Your task to perform on an android device: What is the news today? Image 0: 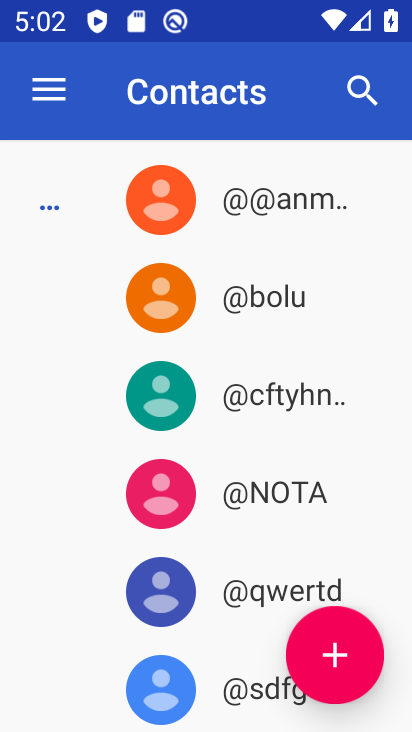
Step 0: press back button
Your task to perform on an android device: What is the news today? Image 1: 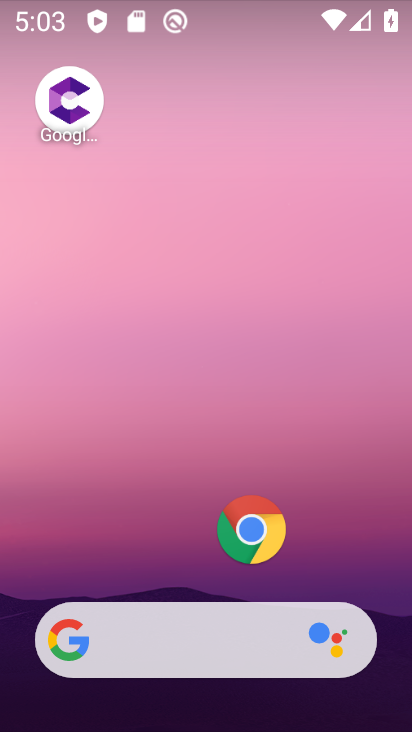
Step 1: click (151, 648)
Your task to perform on an android device: What is the news today? Image 2: 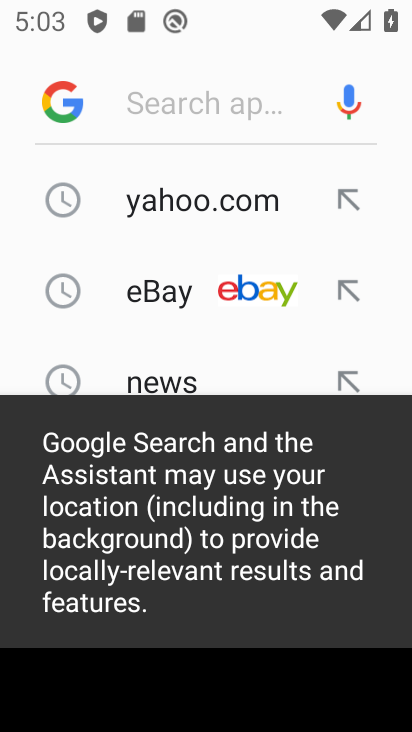
Step 2: click (169, 375)
Your task to perform on an android device: What is the news today? Image 3: 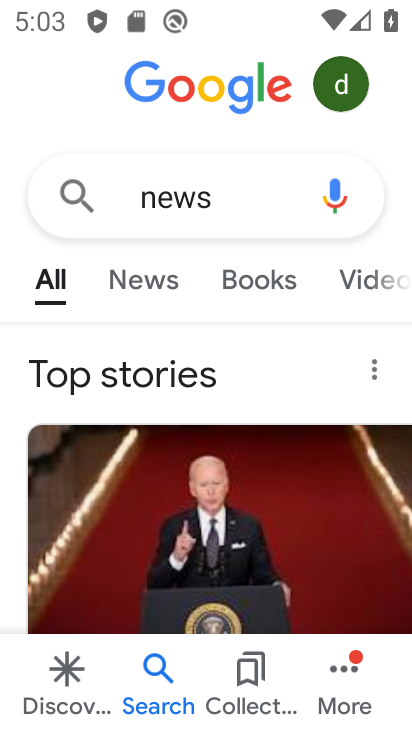
Step 3: task complete